Your task to perform on an android device: What's on the menu at Chick-fil-A? Image 0: 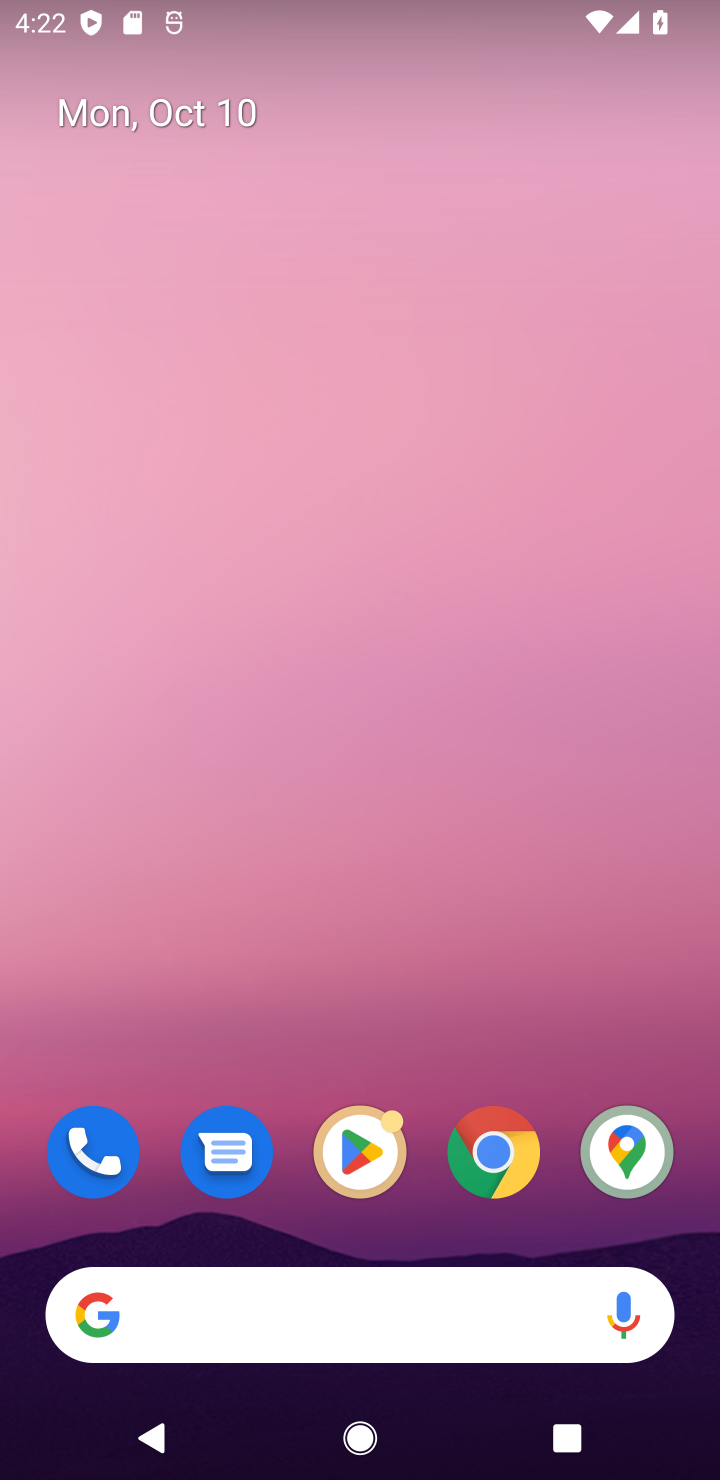
Step 0: click (498, 1151)
Your task to perform on an android device: What's on the menu at Chick-fil-A? Image 1: 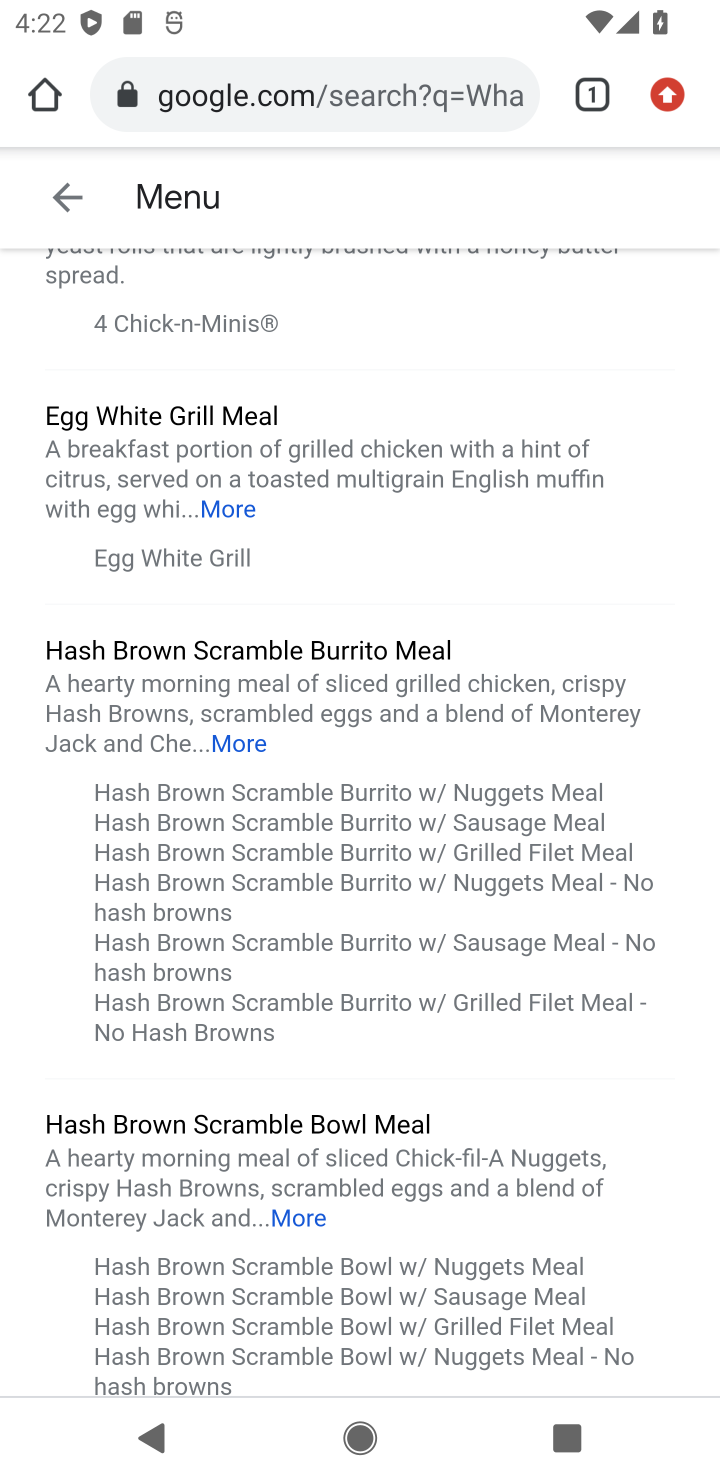
Step 1: click (434, 91)
Your task to perform on an android device: What's on the menu at Chick-fil-A? Image 2: 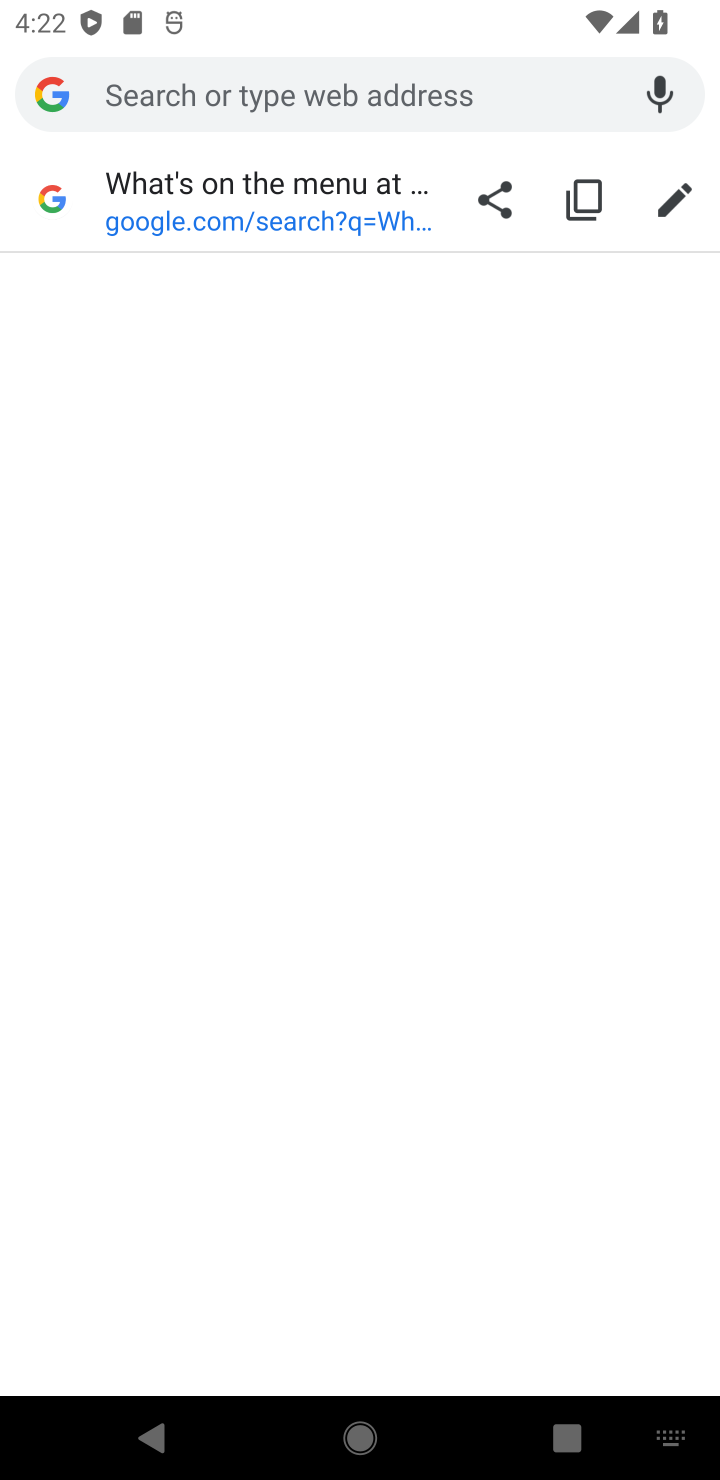
Step 2: type "What's on the menu at Chick-fil-A?"
Your task to perform on an android device: What's on the menu at Chick-fil-A? Image 3: 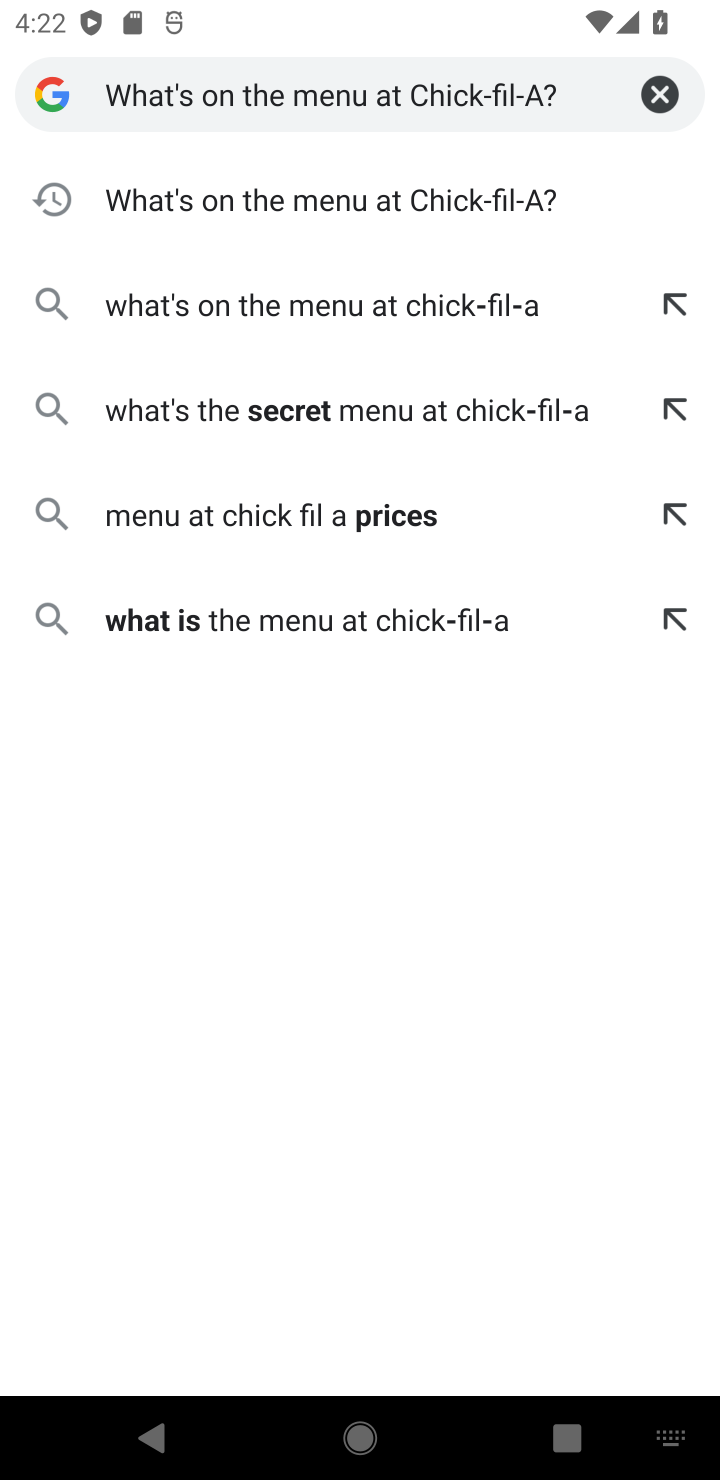
Step 3: click (431, 208)
Your task to perform on an android device: What's on the menu at Chick-fil-A? Image 4: 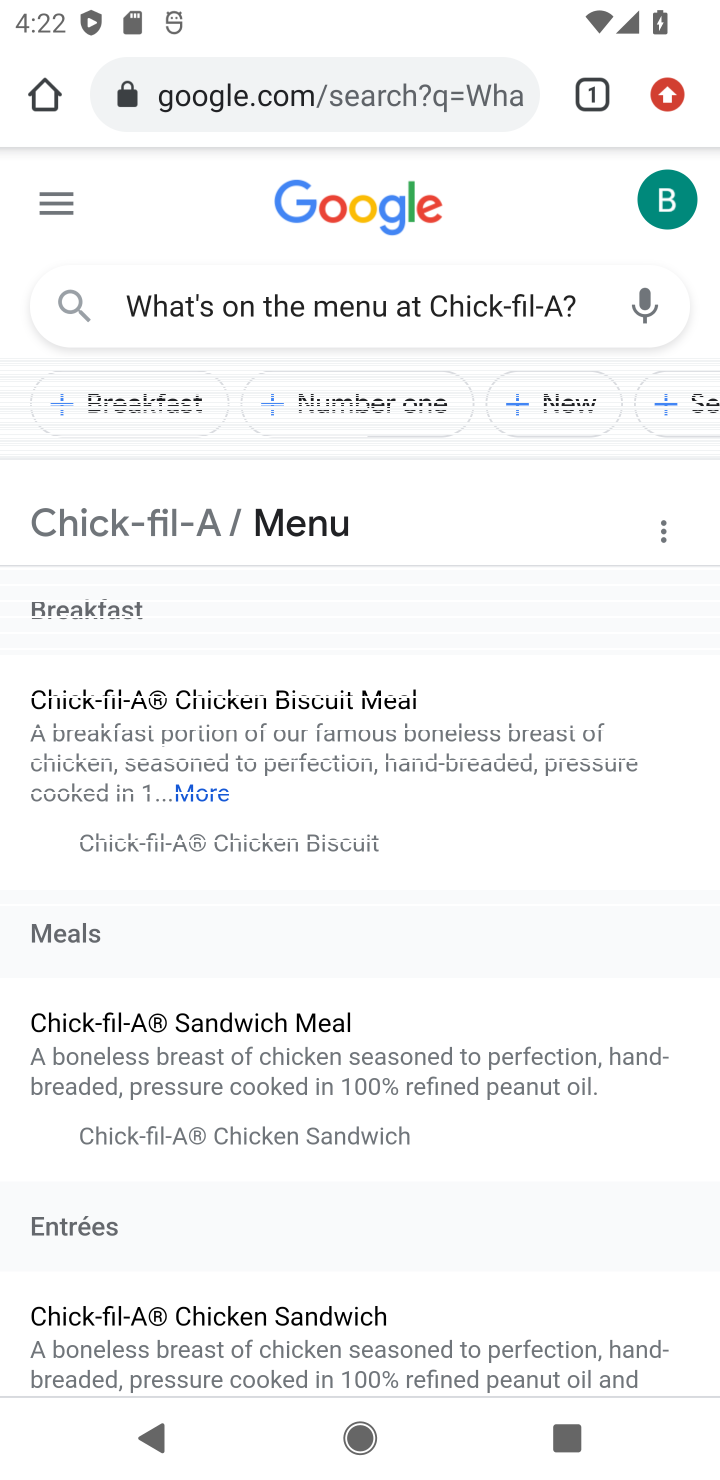
Step 4: drag from (298, 1169) to (430, 873)
Your task to perform on an android device: What's on the menu at Chick-fil-A? Image 5: 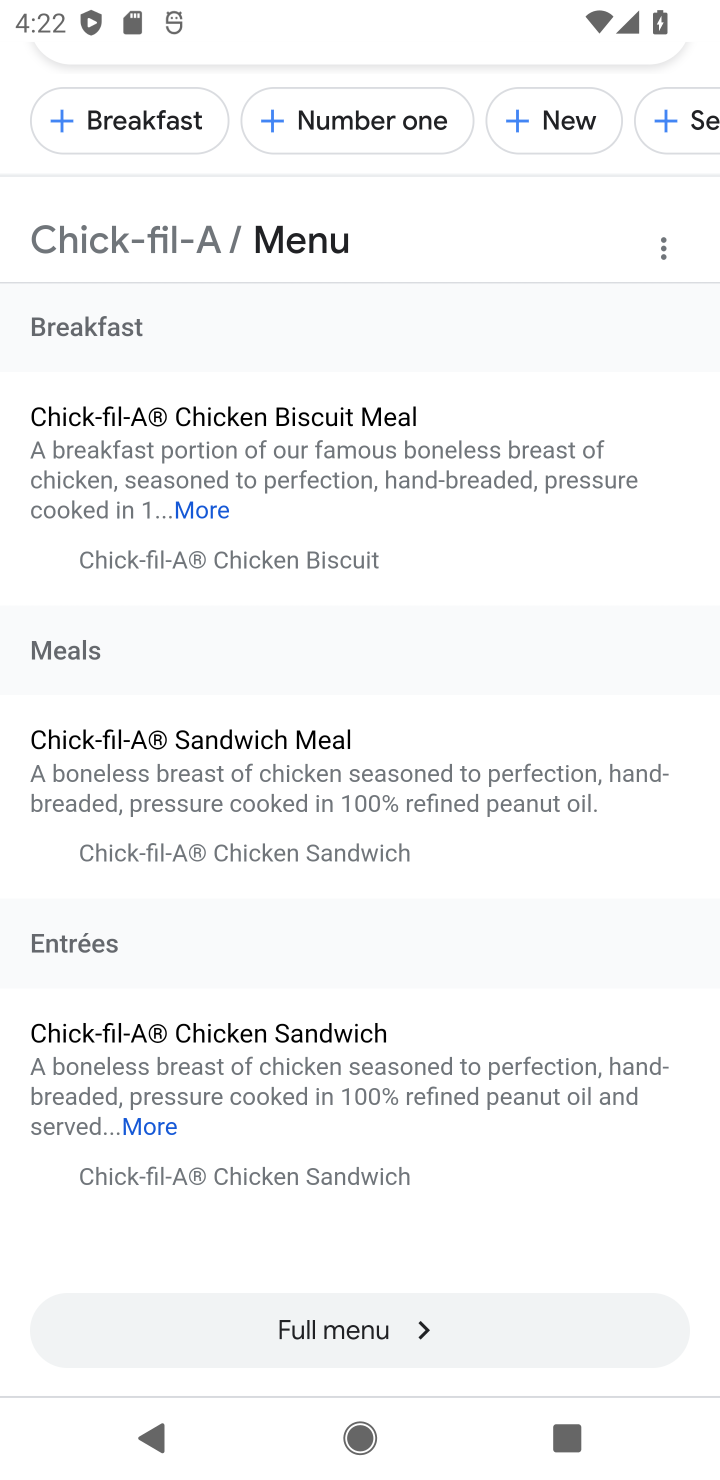
Step 5: click (368, 1330)
Your task to perform on an android device: What's on the menu at Chick-fil-A? Image 6: 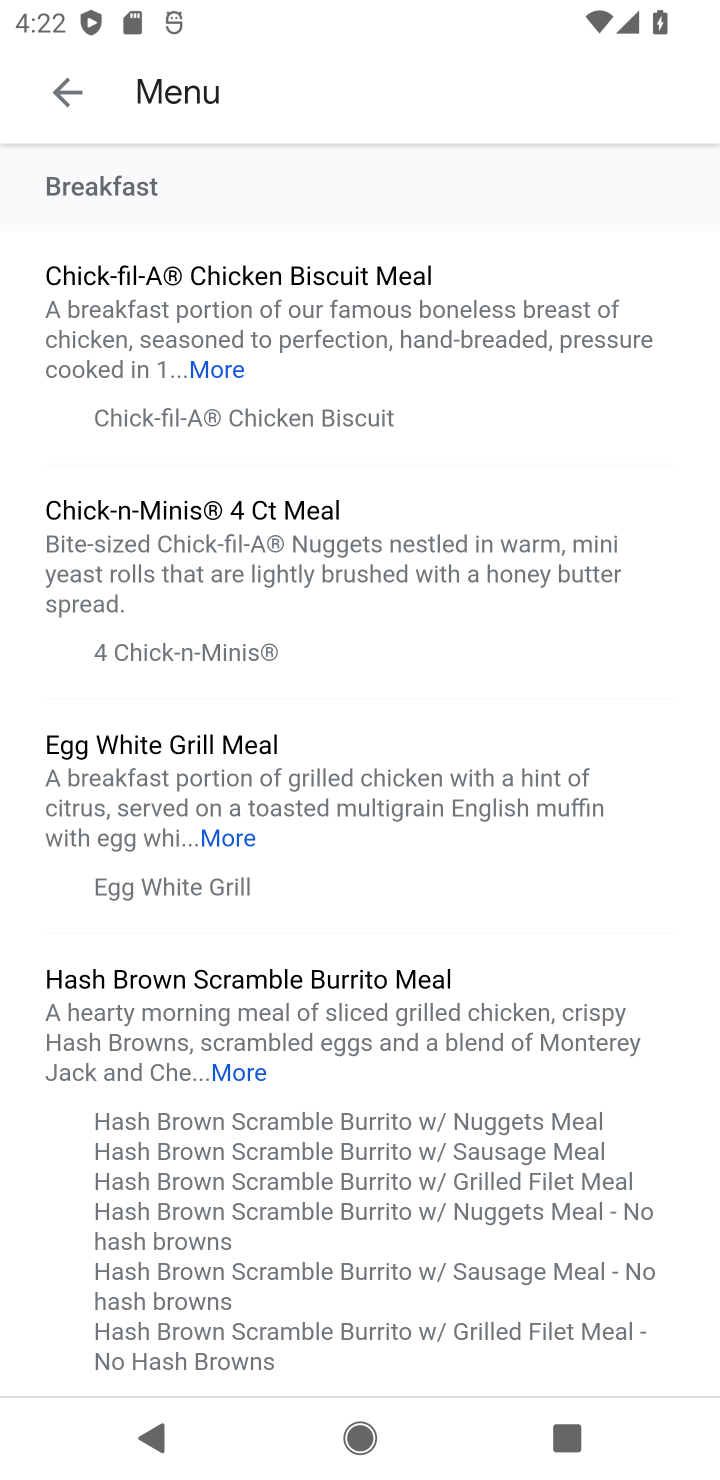
Step 6: task complete